Your task to perform on an android device: stop showing notifications on the lock screen Image 0: 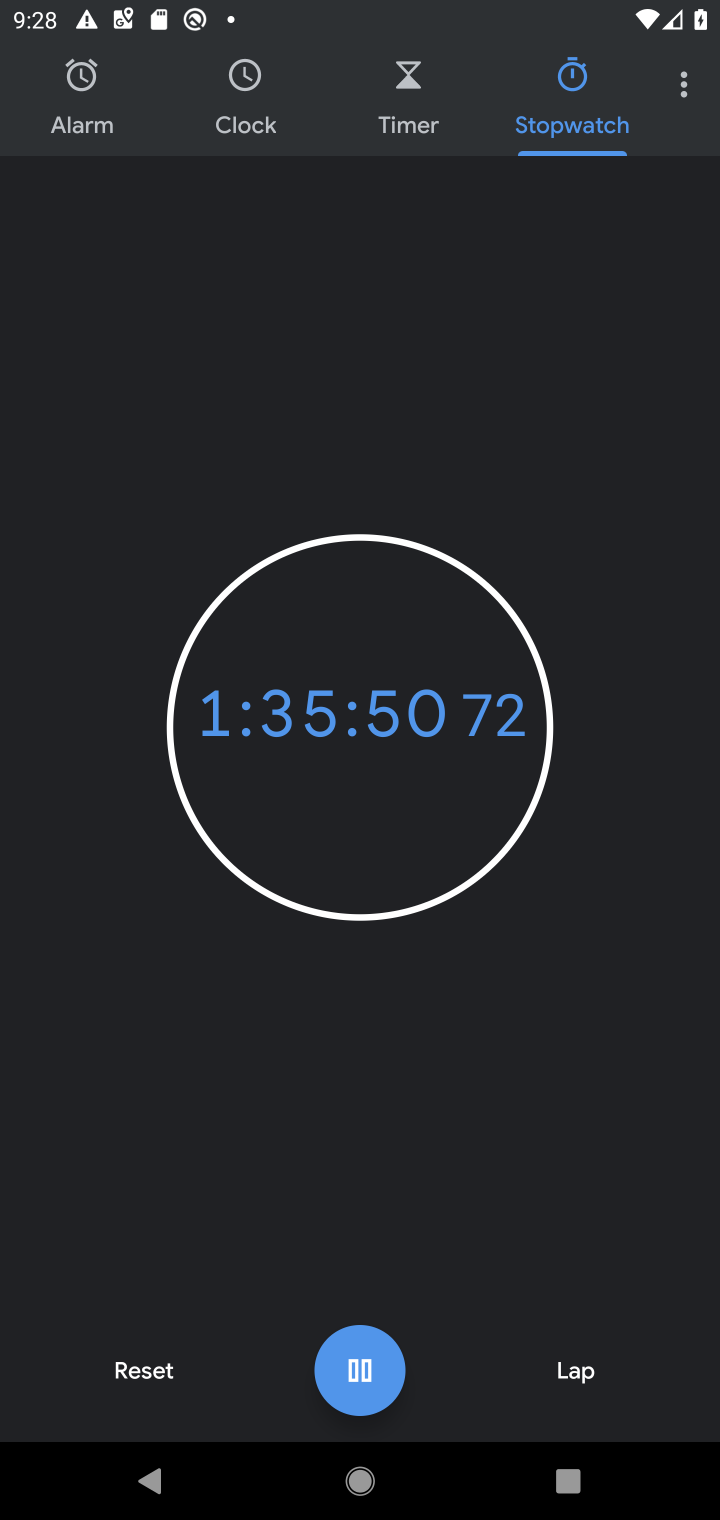
Step 0: press home button
Your task to perform on an android device: stop showing notifications on the lock screen Image 1: 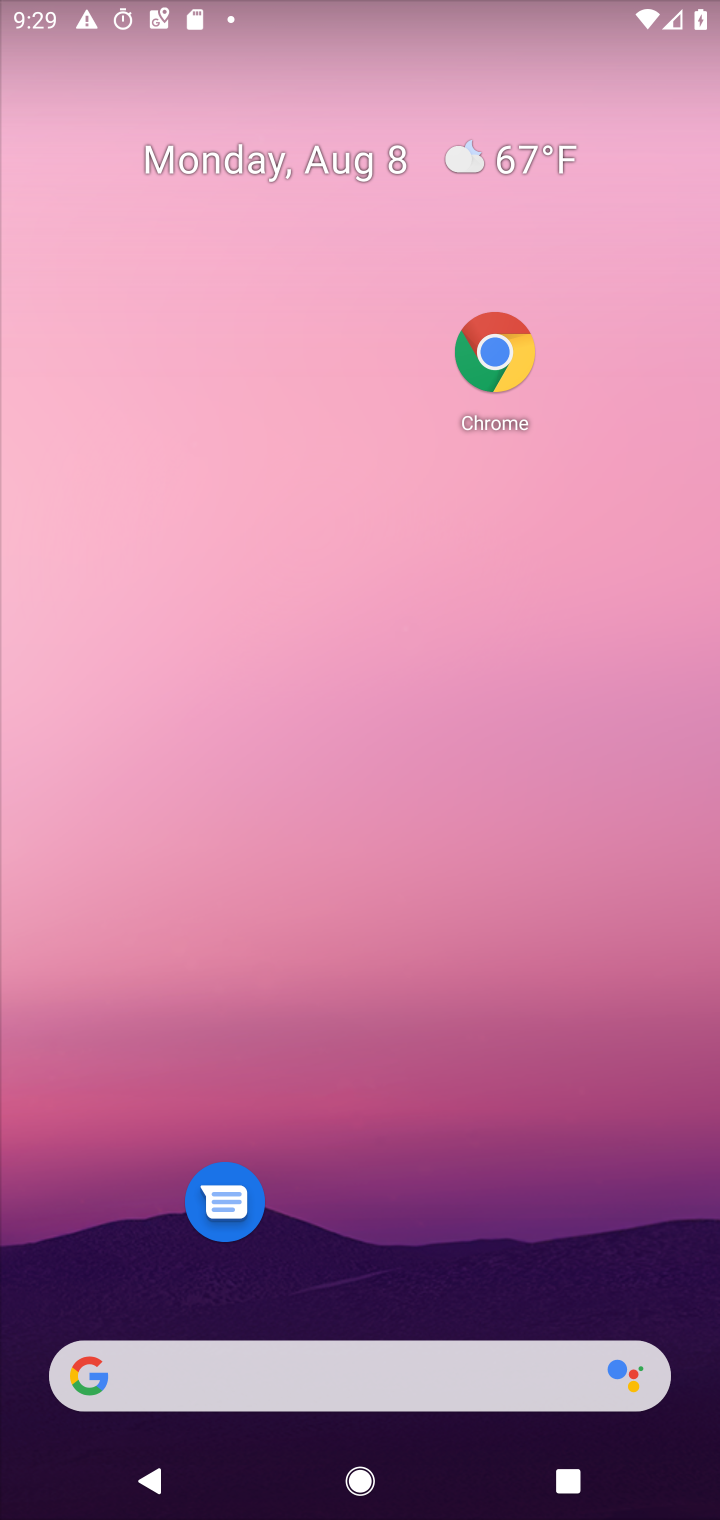
Step 1: drag from (346, 1449) to (344, 326)
Your task to perform on an android device: stop showing notifications on the lock screen Image 2: 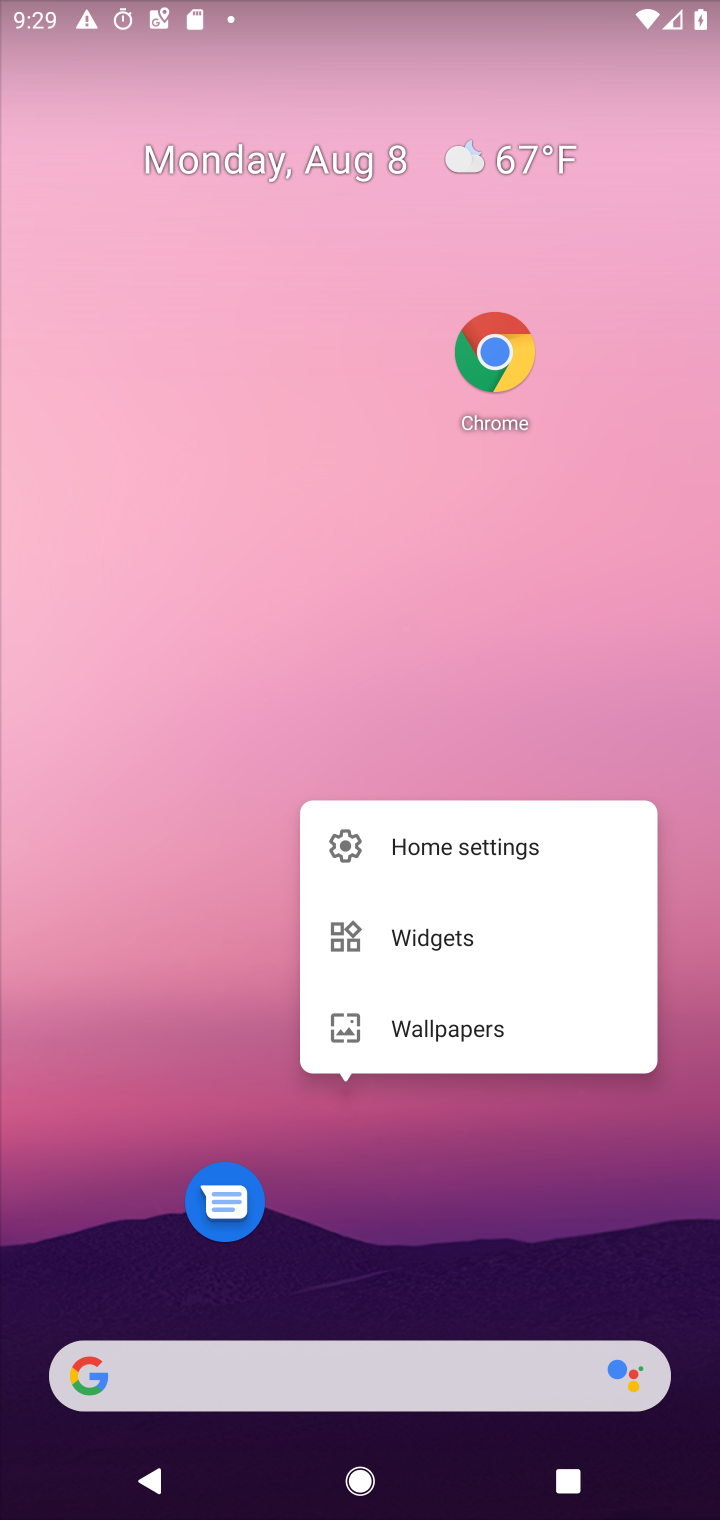
Step 2: click (201, 589)
Your task to perform on an android device: stop showing notifications on the lock screen Image 3: 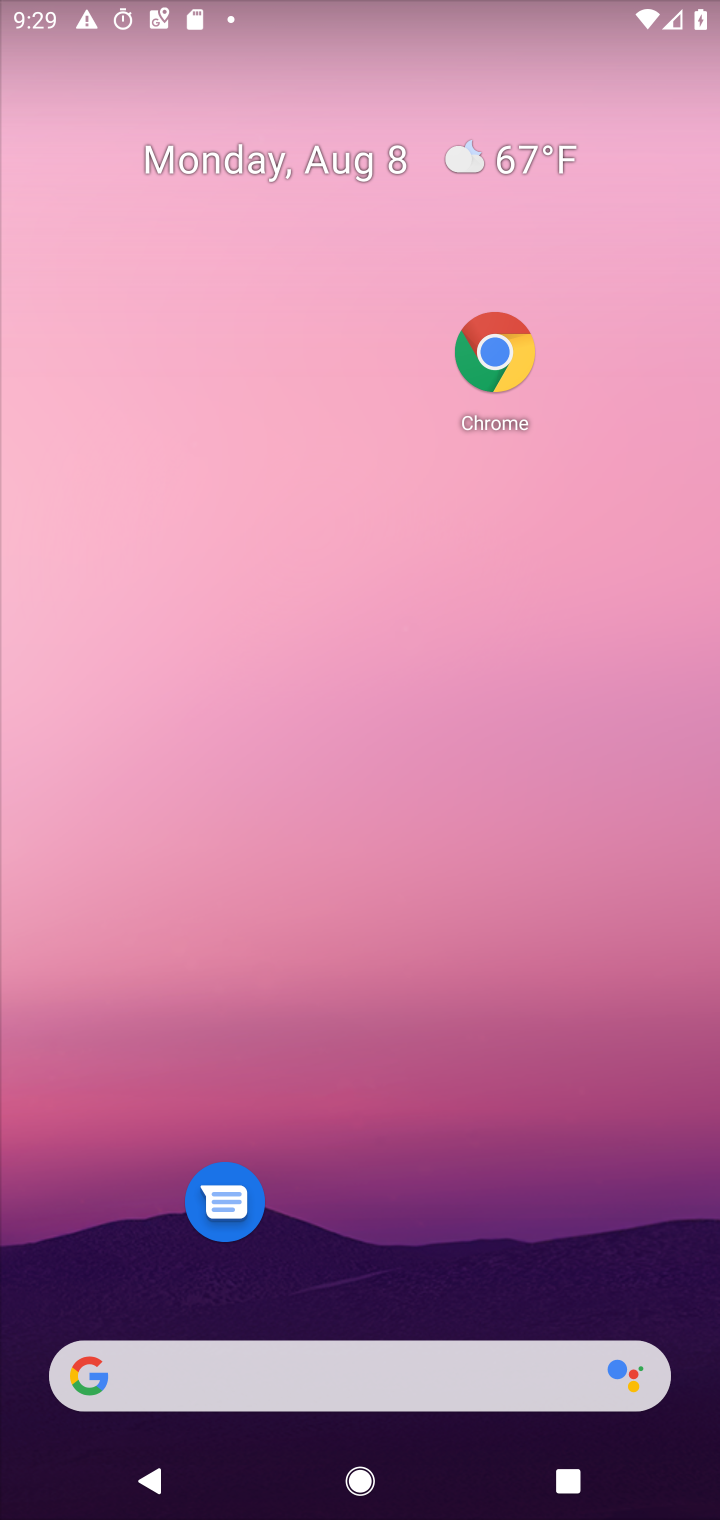
Step 3: drag from (237, 1371) to (212, 118)
Your task to perform on an android device: stop showing notifications on the lock screen Image 4: 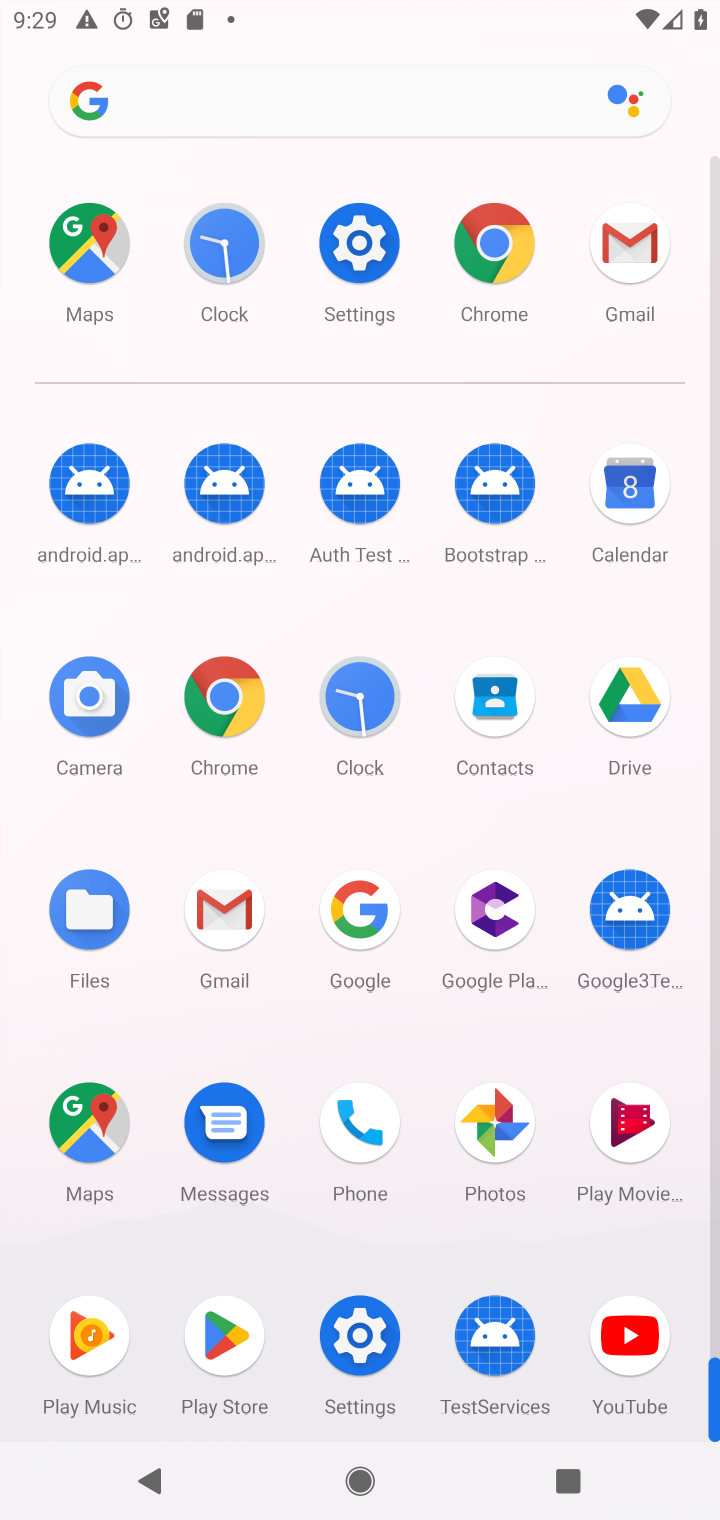
Step 4: click (357, 265)
Your task to perform on an android device: stop showing notifications on the lock screen Image 5: 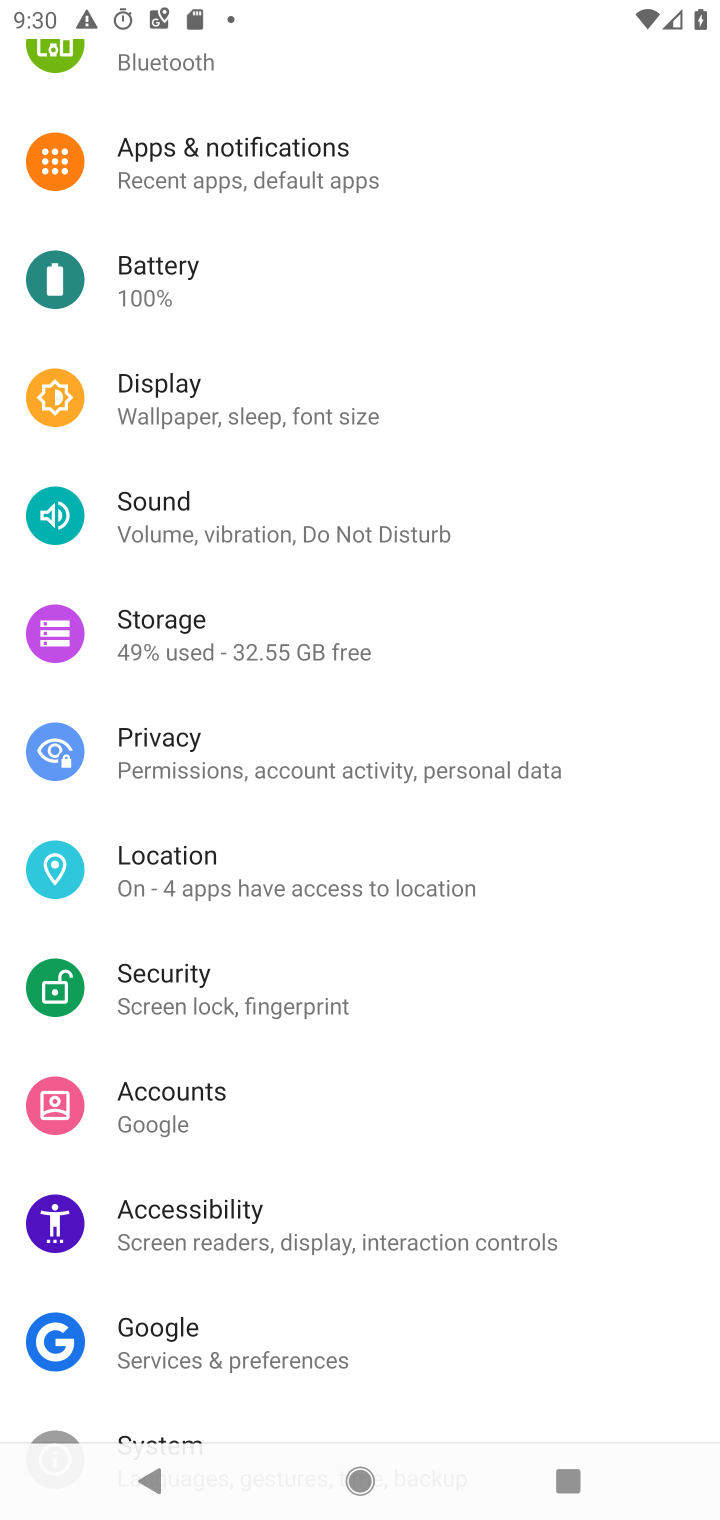
Step 5: click (213, 165)
Your task to perform on an android device: stop showing notifications on the lock screen Image 6: 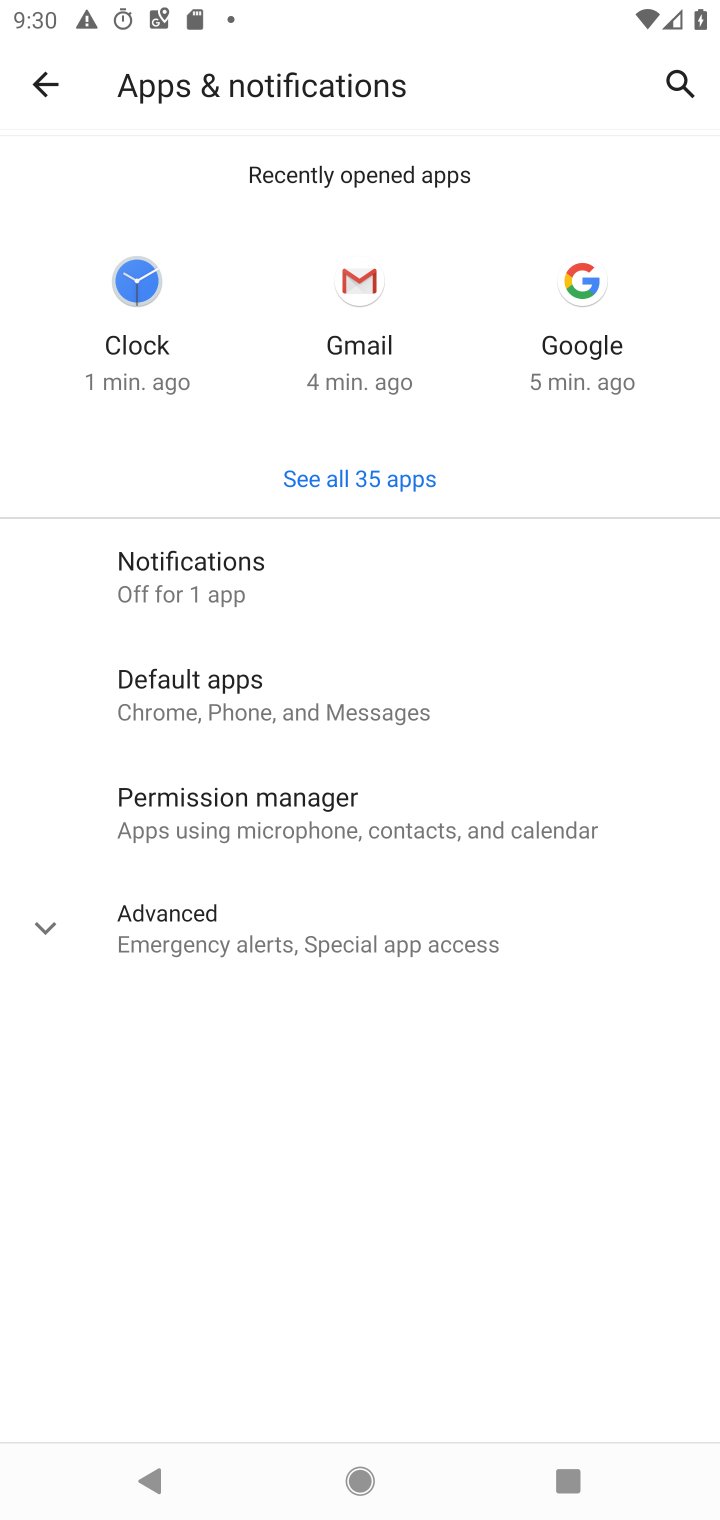
Step 6: click (257, 598)
Your task to perform on an android device: stop showing notifications on the lock screen Image 7: 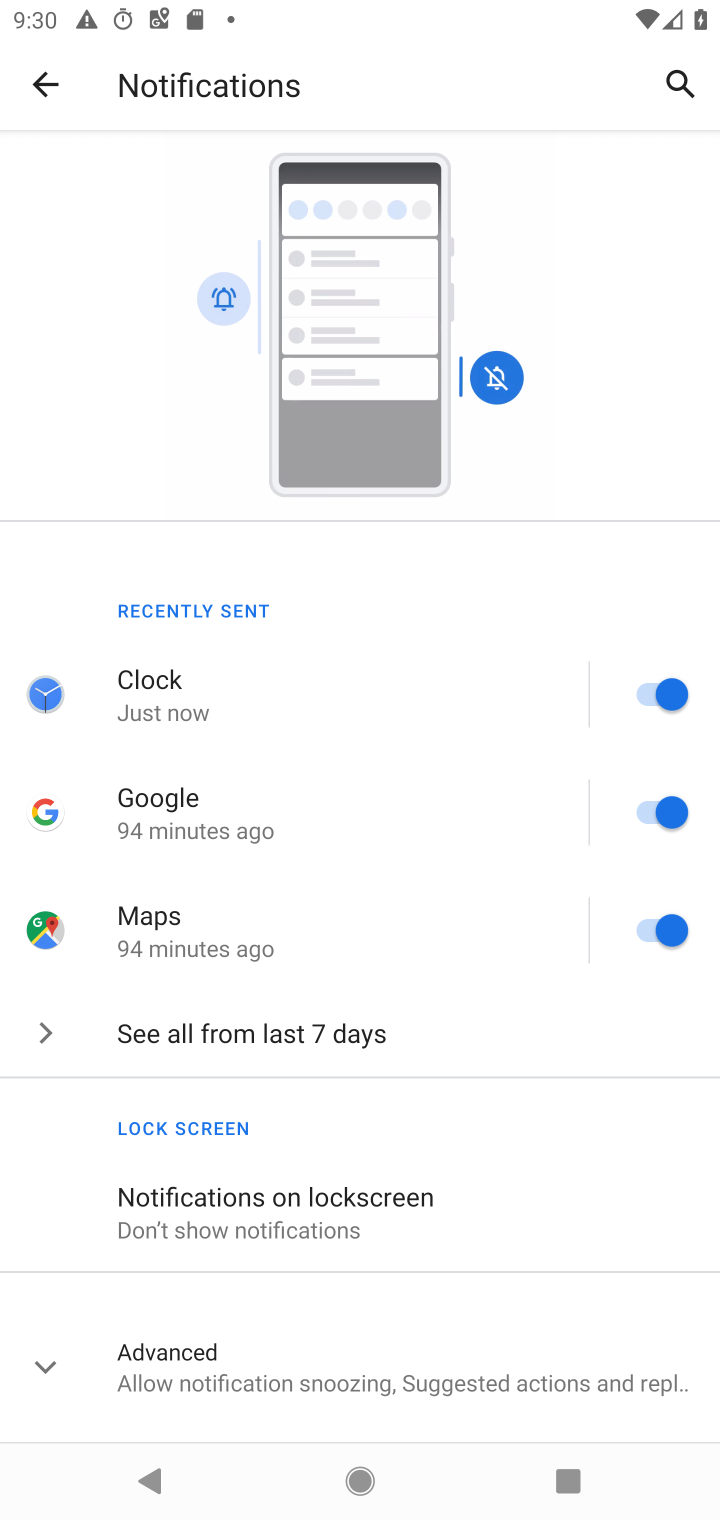
Step 7: click (246, 1209)
Your task to perform on an android device: stop showing notifications on the lock screen Image 8: 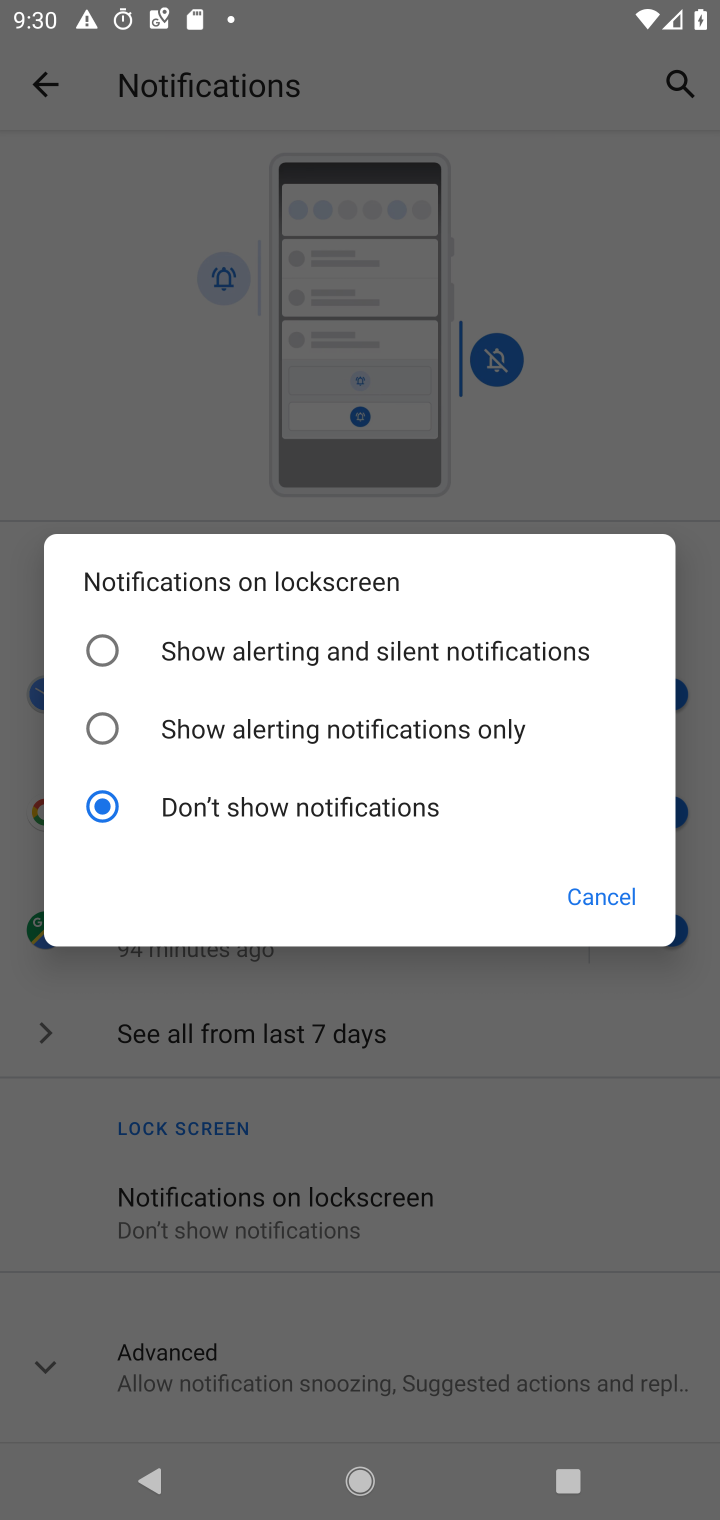
Step 8: task complete